Your task to perform on an android device: check data usage Image 0: 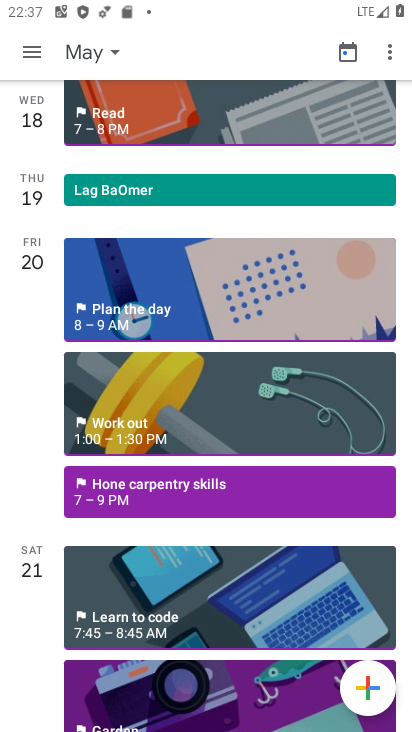
Step 0: press home button
Your task to perform on an android device: check data usage Image 1: 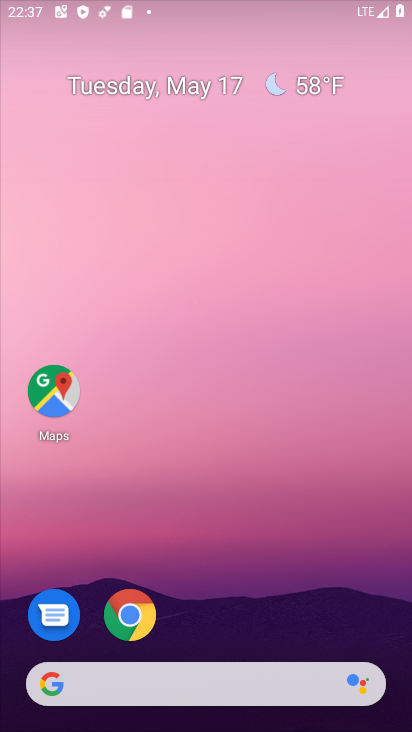
Step 1: drag from (223, 554) to (250, 97)
Your task to perform on an android device: check data usage Image 2: 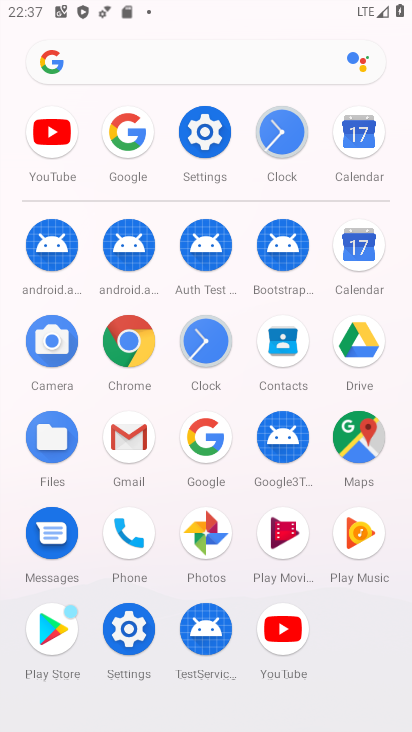
Step 2: click (212, 152)
Your task to perform on an android device: check data usage Image 3: 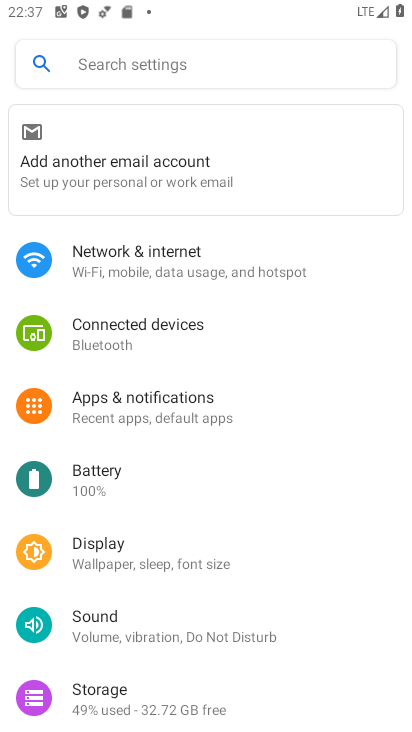
Step 3: click (177, 276)
Your task to perform on an android device: check data usage Image 4: 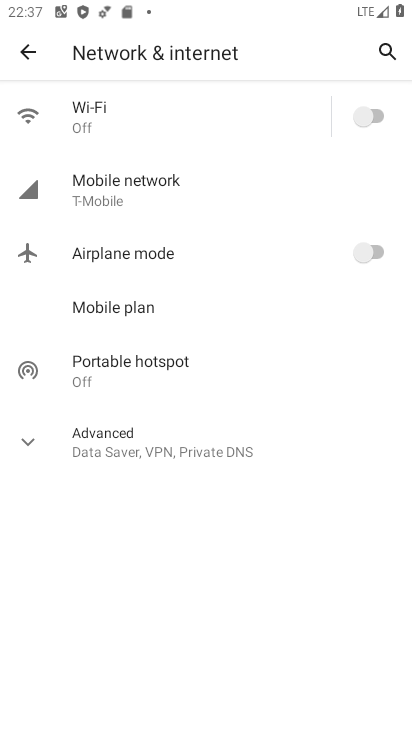
Step 4: click (148, 204)
Your task to perform on an android device: check data usage Image 5: 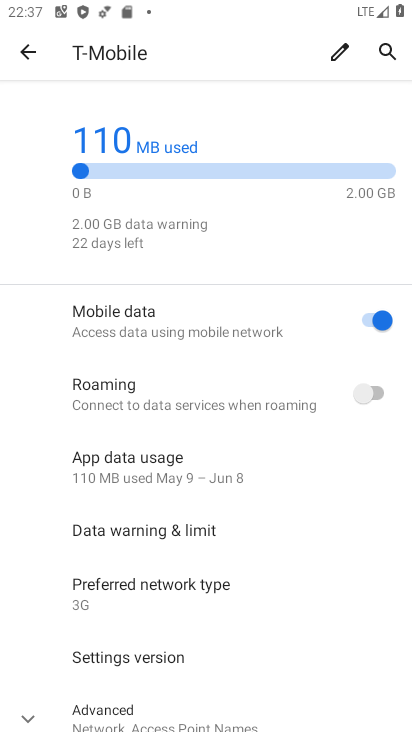
Step 5: click (193, 468)
Your task to perform on an android device: check data usage Image 6: 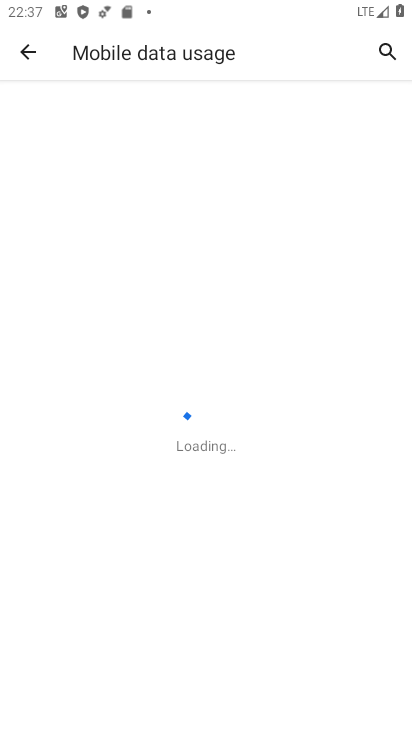
Step 6: task complete